Your task to perform on an android device: Show me popular games on the Play Store Image 0: 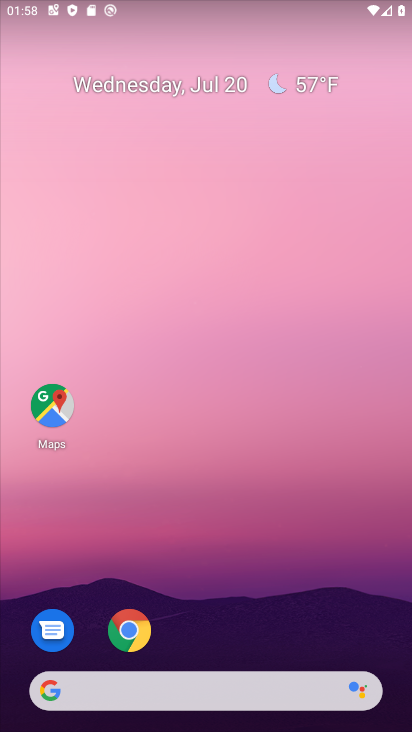
Step 0: drag from (329, 638) to (283, 14)
Your task to perform on an android device: Show me popular games on the Play Store Image 1: 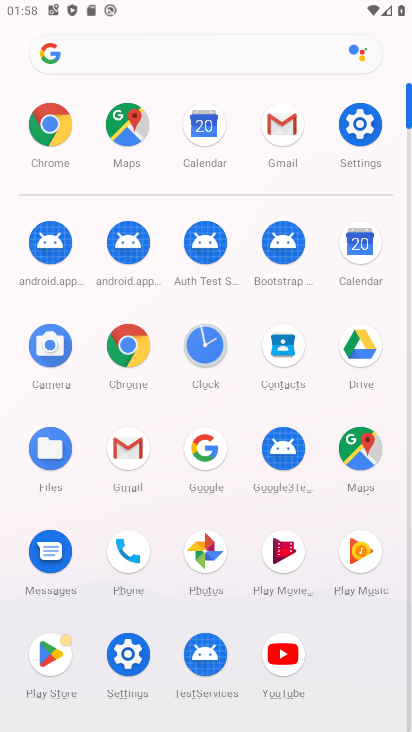
Step 1: click (50, 636)
Your task to perform on an android device: Show me popular games on the Play Store Image 2: 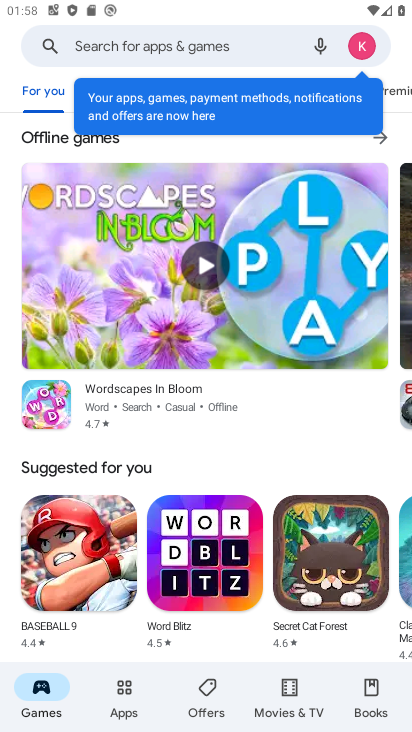
Step 2: drag from (267, 583) to (277, 118)
Your task to perform on an android device: Show me popular games on the Play Store Image 3: 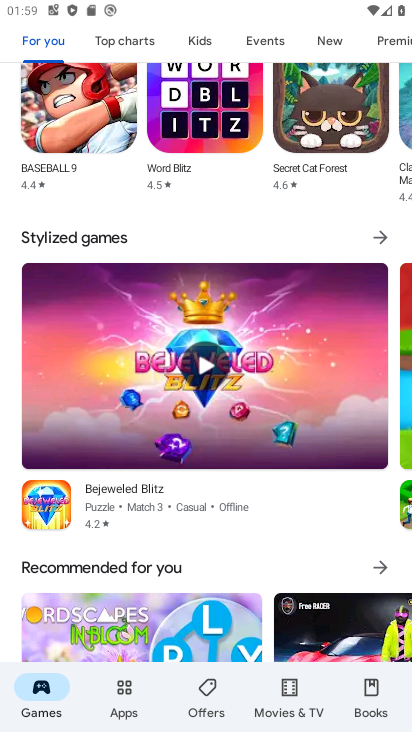
Step 3: drag from (266, 545) to (324, 32)
Your task to perform on an android device: Show me popular games on the Play Store Image 4: 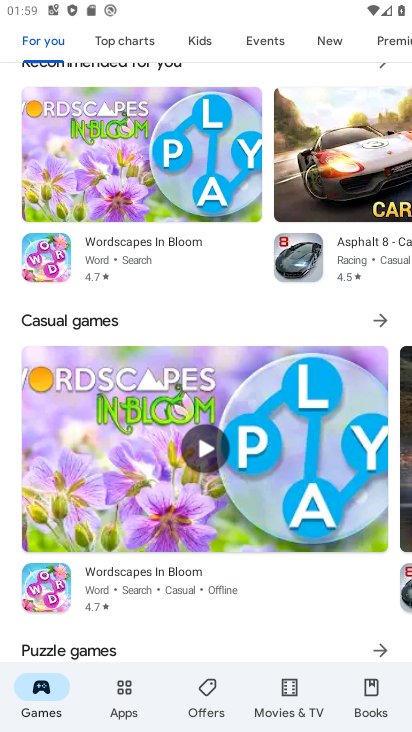
Step 4: drag from (245, 599) to (287, 50)
Your task to perform on an android device: Show me popular games on the Play Store Image 5: 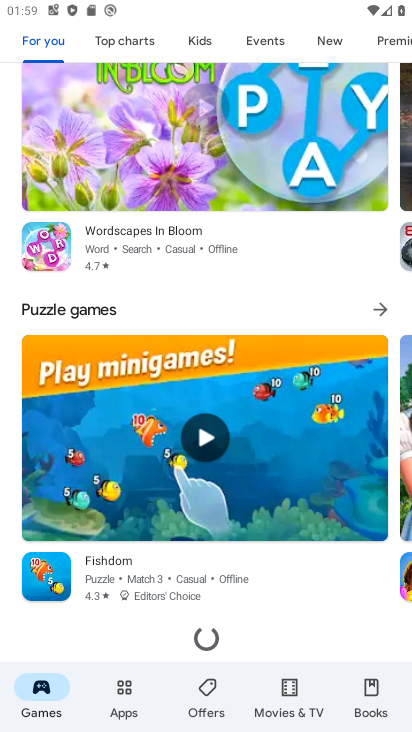
Step 5: drag from (246, 595) to (257, 60)
Your task to perform on an android device: Show me popular games on the Play Store Image 6: 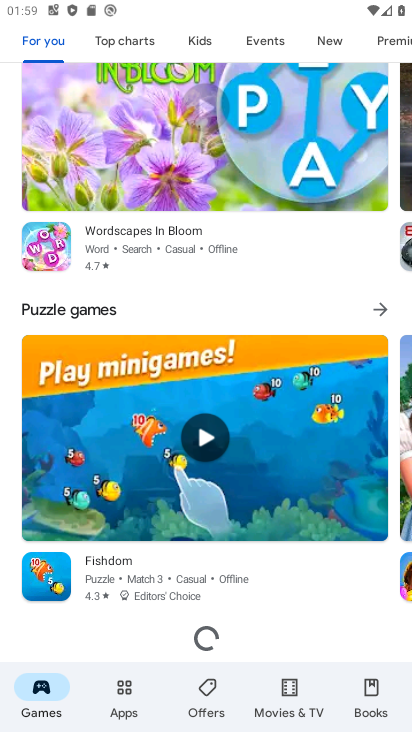
Step 6: drag from (274, 295) to (265, 17)
Your task to perform on an android device: Show me popular games on the Play Store Image 7: 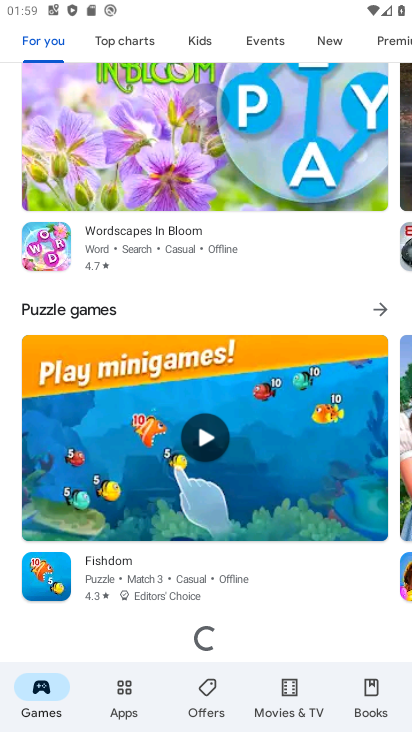
Step 7: drag from (309, 281) to (306, 1)
Your task to perform on an android device: Show me popular games on the Play Store Image 8: 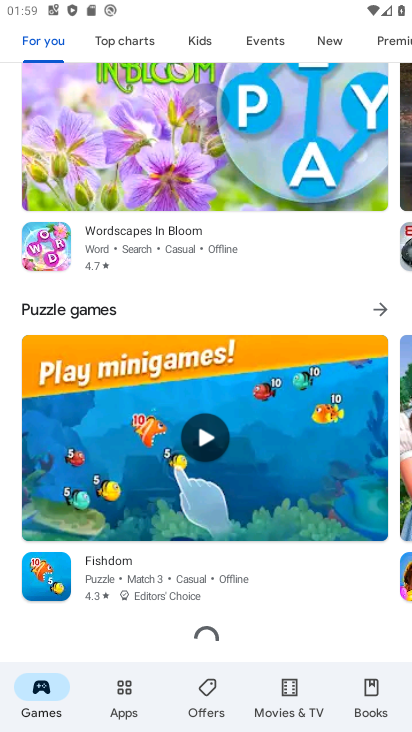
Step 8: drag from (296, 74) to (247, 1)
Your task to perform on an android device: Show me popular games on the Play Store Image 9: 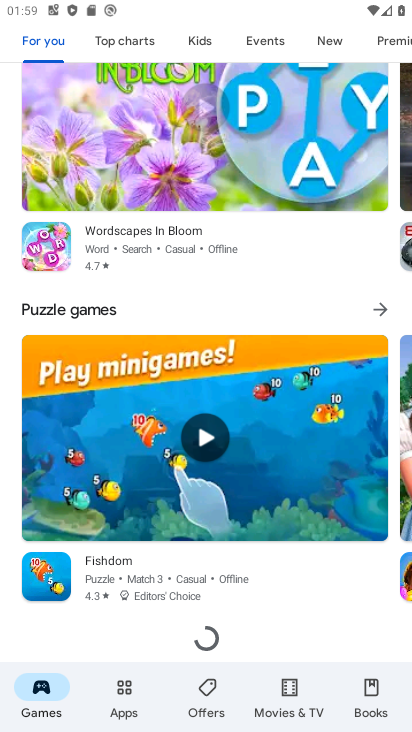
Step 9: drag from (307, 623) to (264, 83)
Your task to perform on an android device: Show me popular games on the Play Store Image 10: 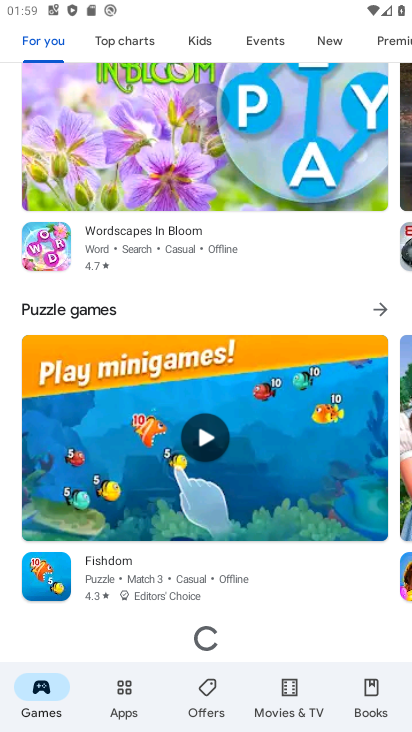
Step 10: drag from (211, 302) to (217, 2)
Your task to perform on an android device: Show me popular games on the Play Store Image 11: 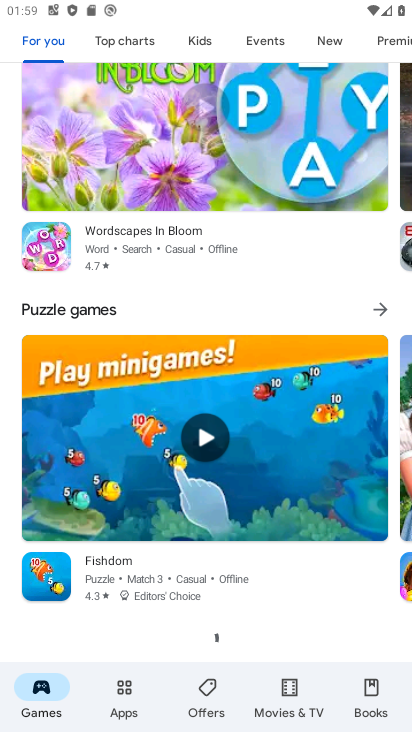
Step 11: click (124, 687)
Your task to perform on an android device: Show me popular games on the Play Store Image 12: 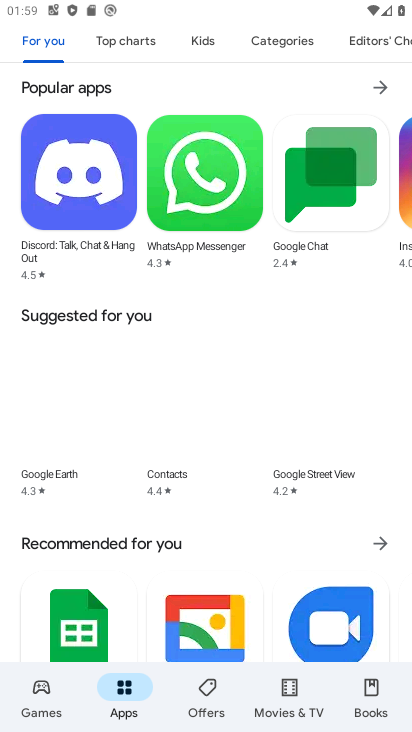
Step 12: click (50, 691)
Your task to perform on an android device: Show me popular games on the Play Store Image 13: 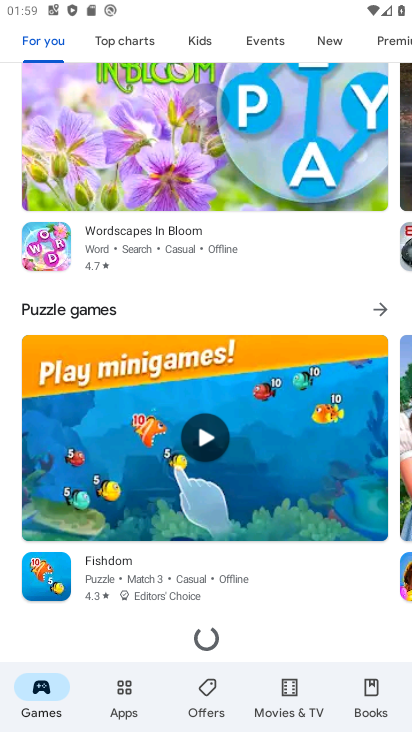
Step 13: task complete